Your task to perform on an android device: Open Google Chrome and click the shortcut for Amazon.com Image 0: 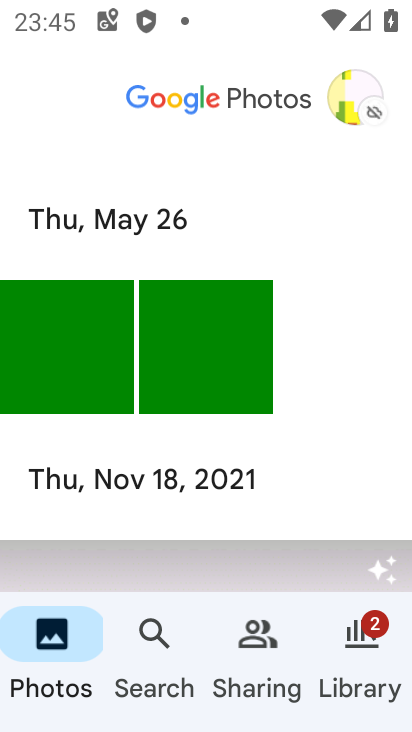
Step 0: press home button
Your task to perform on an android device: Open Google Chrome and click the shortcut for Amazon.com Image 1: 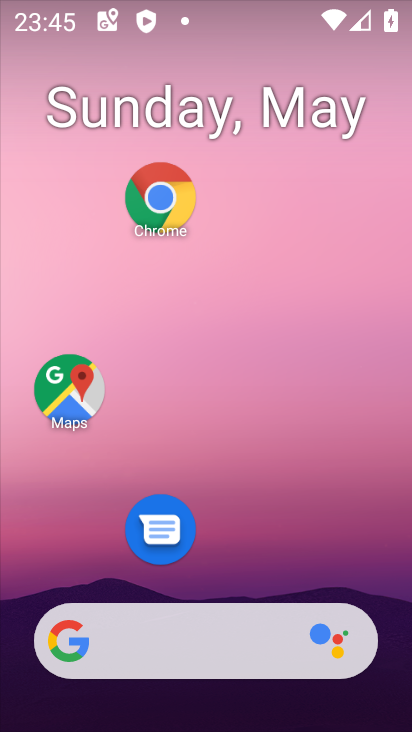
Step 1: task complete